Your task to perform on an android device: move a message to another label in the gmail app Image 0: 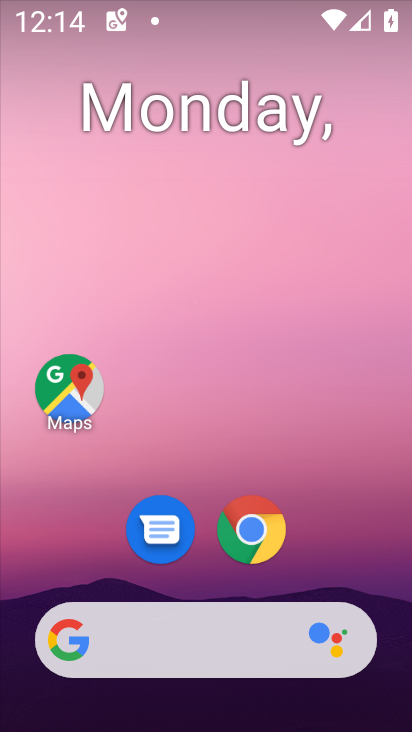
Step 0: drag from (190, 635) to (196, 195)
Your task to perform on an android device: move a message to another label in the gmail app Image 1: 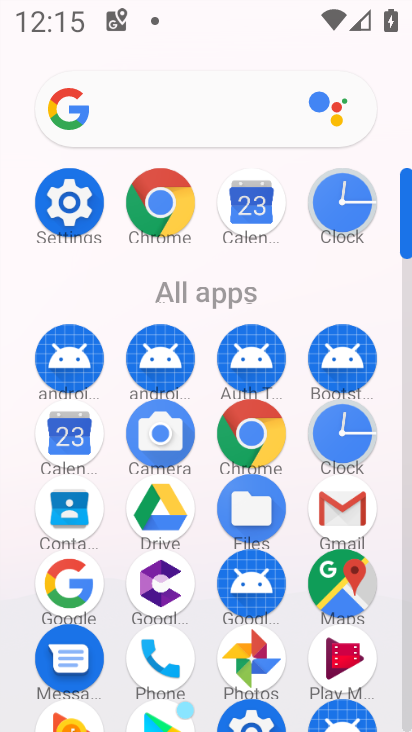
Step 1: click (340, 509)
Your task to perform on an android device: move a message to another label in the gmail app Image 2: 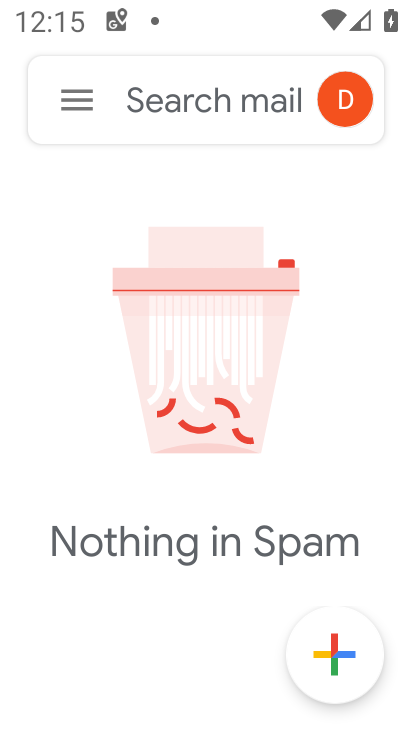
Step 2: click (77, 101)
Your task to perform on an android device: move a message to another label in the gmail app Image 3: 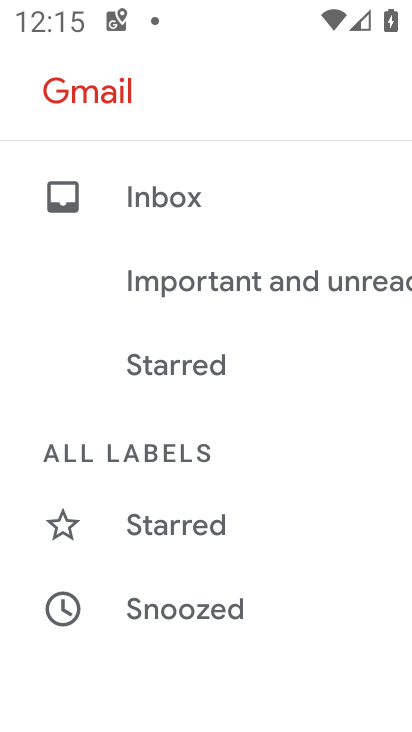
Step 3: drag from (159, 530) to (114, 53)
Your task to perform on an android device: move a message to another label in the gmail app Image 4: 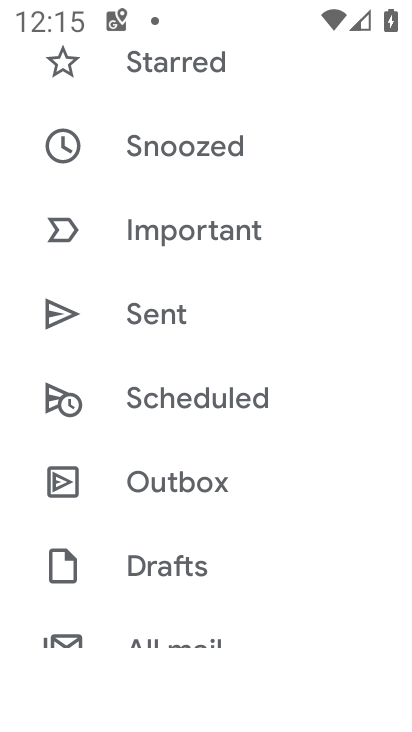
Step 4: drag from (182, 546) to (153, 156)
Your task to perform on an android device: move a message to another label in the gmail app Image 5: 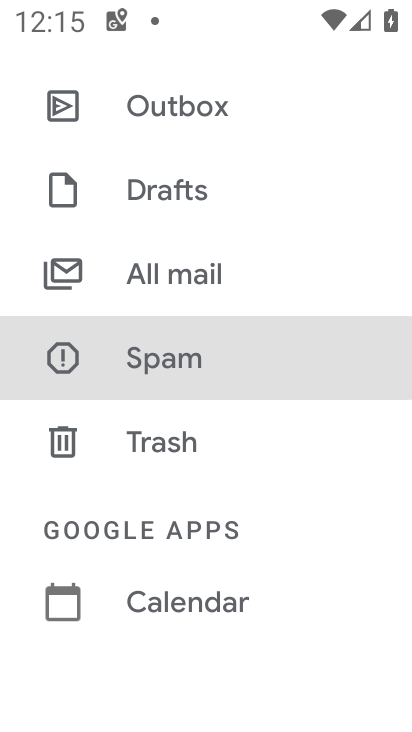
Step 5: click (160, 272)
Your task to perform on an android device: move a message to another label in the gmail app Image 6: 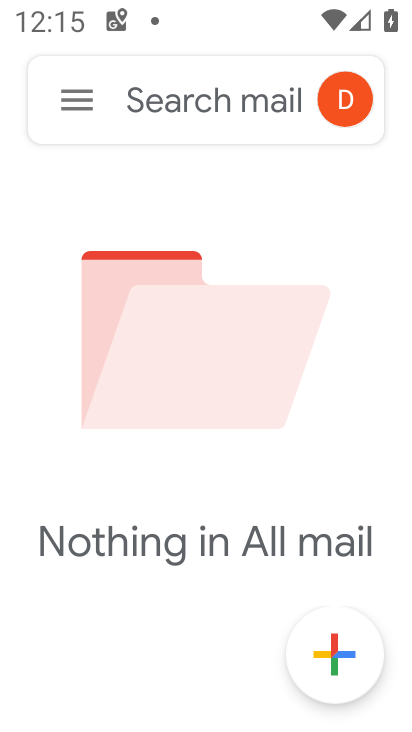
Step 6: task complete